Your task to perform on an android device: empty trash in the gmail app Image 0: 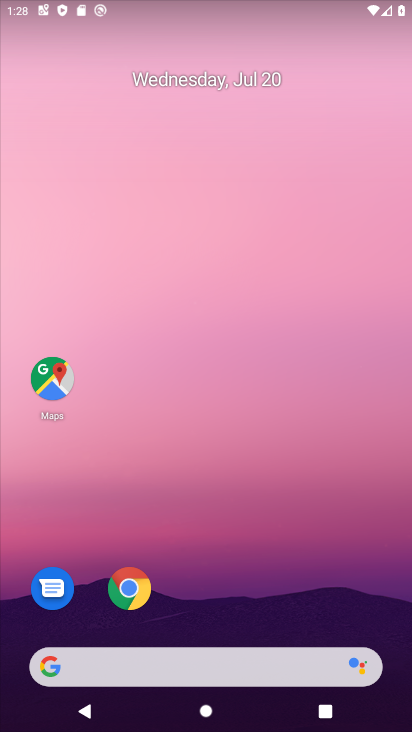
Step 0: drag from (23, 707) to (248, 192)
Your task to perform on an android device: empty trash in the gmail app Image 1: 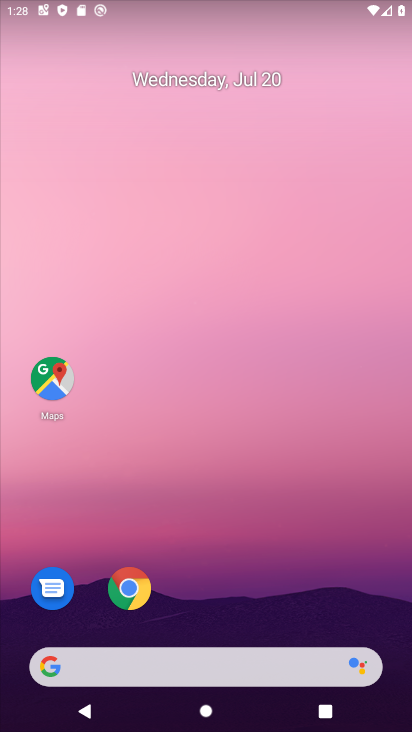
Step 1: drag from (37, 699) to (291, 44)
Your task to perform on an android device: empty trash in the gmail app Image 2: 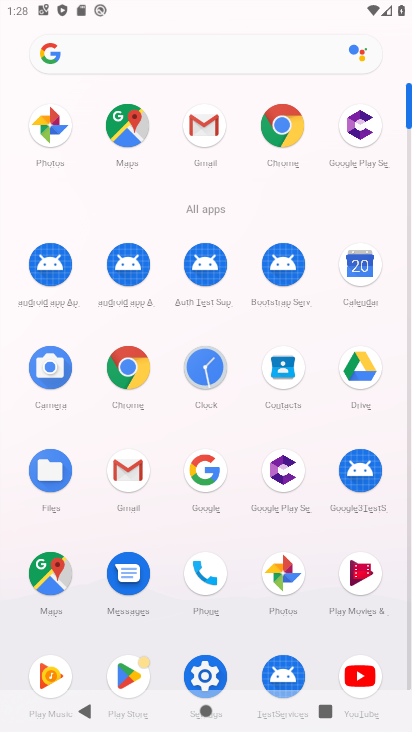
Step 2: click (200, 145)
Your task to perform on an android device: empty trash in the gmail app Image 3: 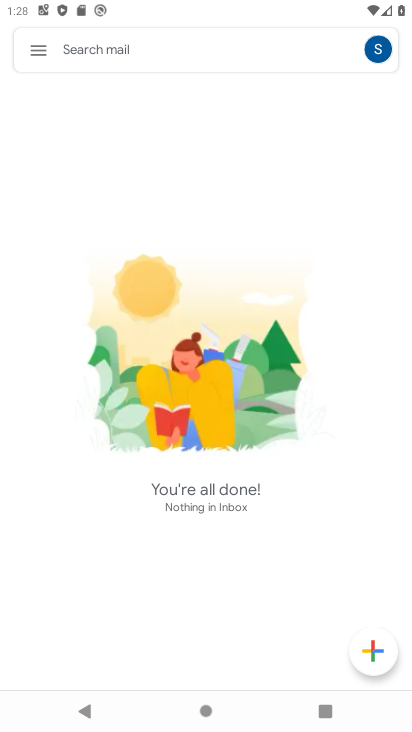
Step 3: click (42, 55)
Your task to perform on an android device: empty trash in the gmail app Image 4: 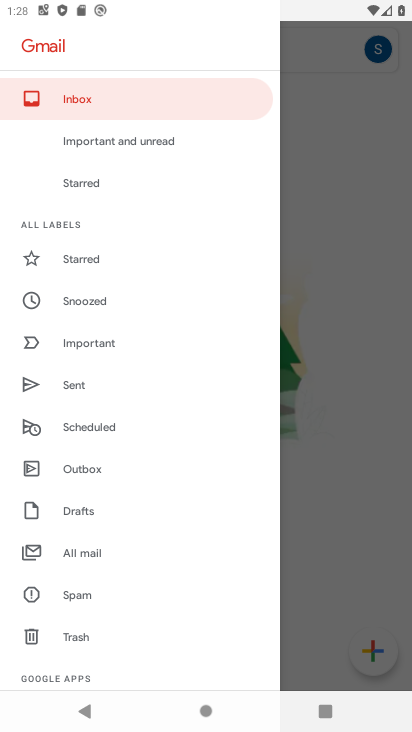
Step 4: click (66, 639)
Your task to perform on an android device: empty trash in the gmail app Image 5: 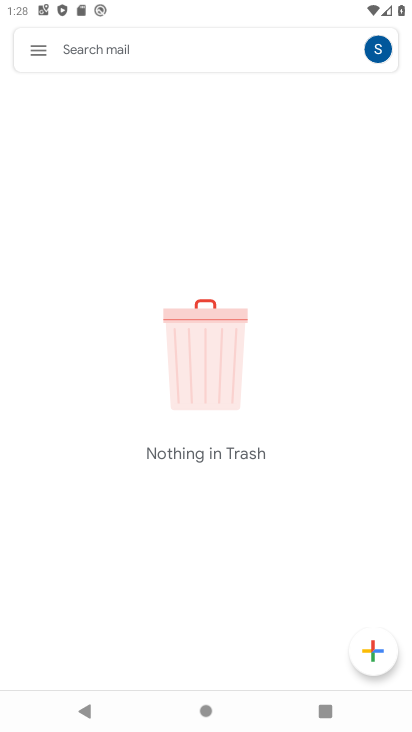
Step 5: task complete